Your task to perform on an android device: Is it going to rain tomorrow? Image 0: 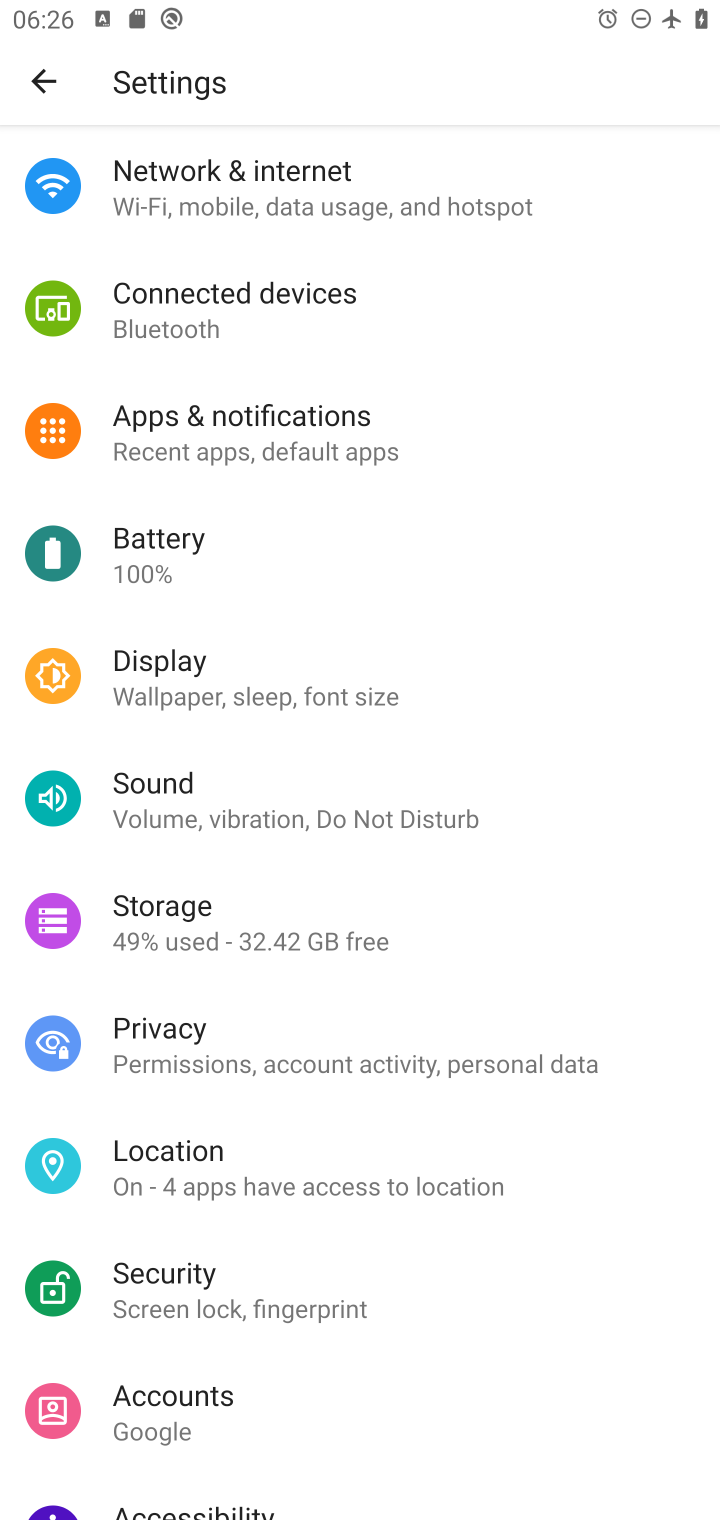
Step 0: press home button
Your task to perform on an android device: Is it going to rain tomorrow? Image 1: 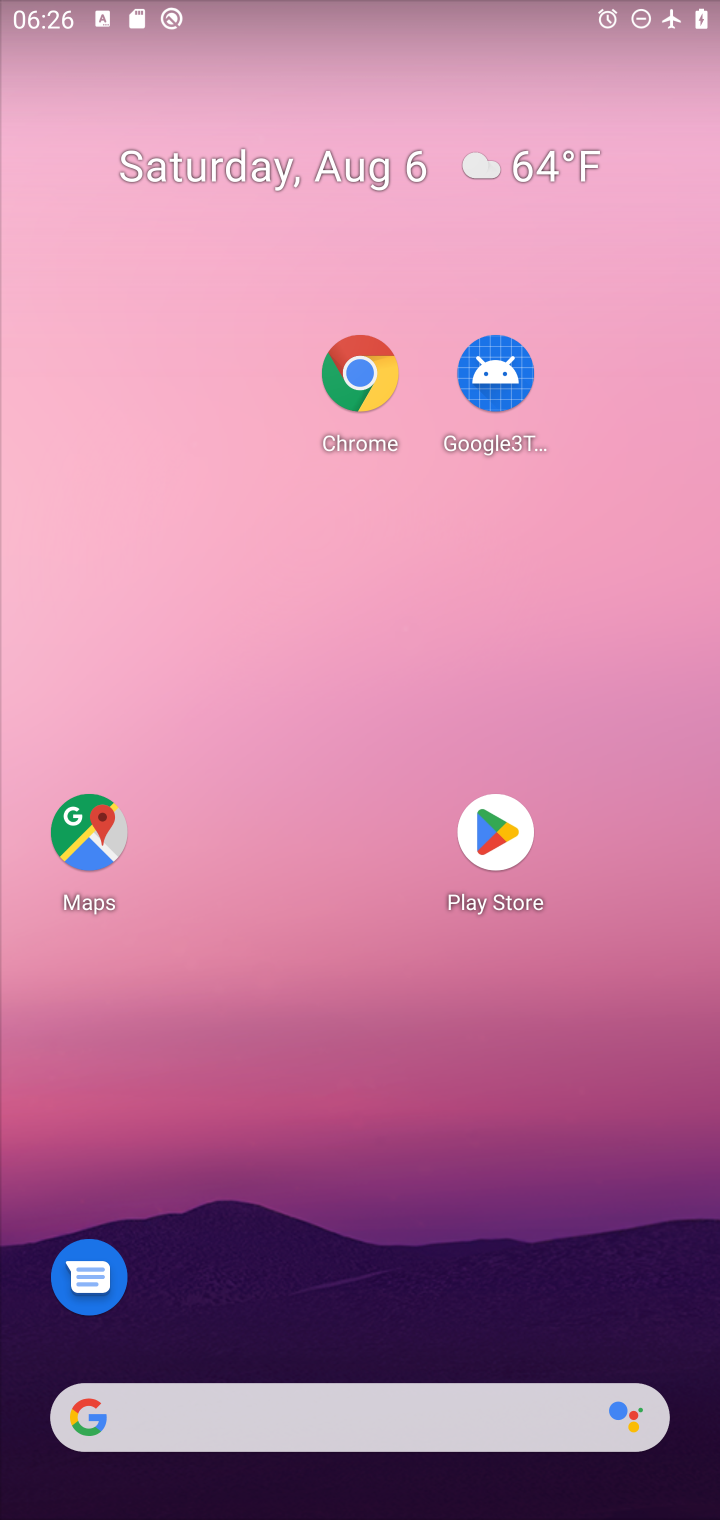
Step 1: drag from (363, 1420) to (82, 380)
Your task to perform on an android device: Is it going to rain tomorrow? Image 2: 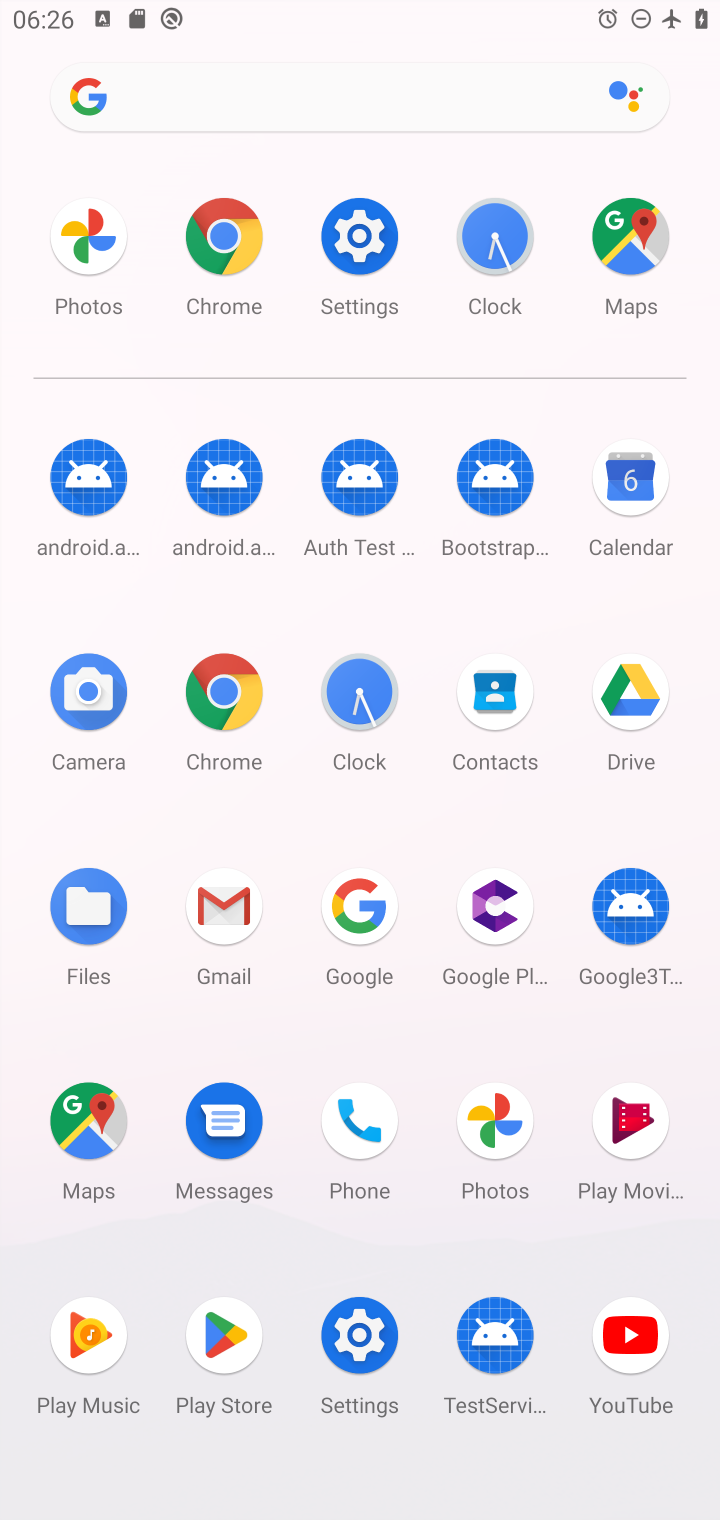
Step 2: click (227, 687)
Your task to perform on an android device: Is it going to rain tomorrow? Image 3: 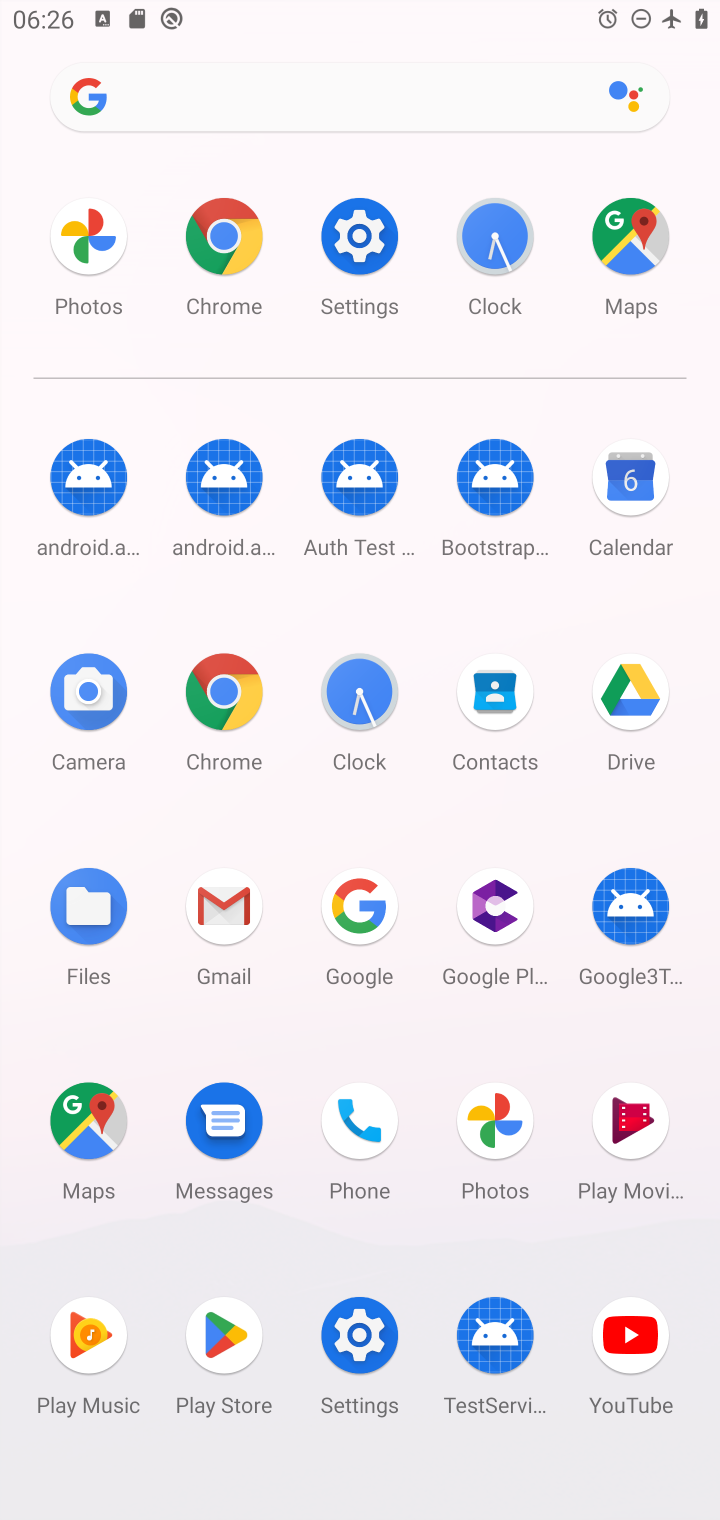
Step 3: click (227, 687)
Your task to perform on an android device: Is it going to rain tomorrow? Image 4: 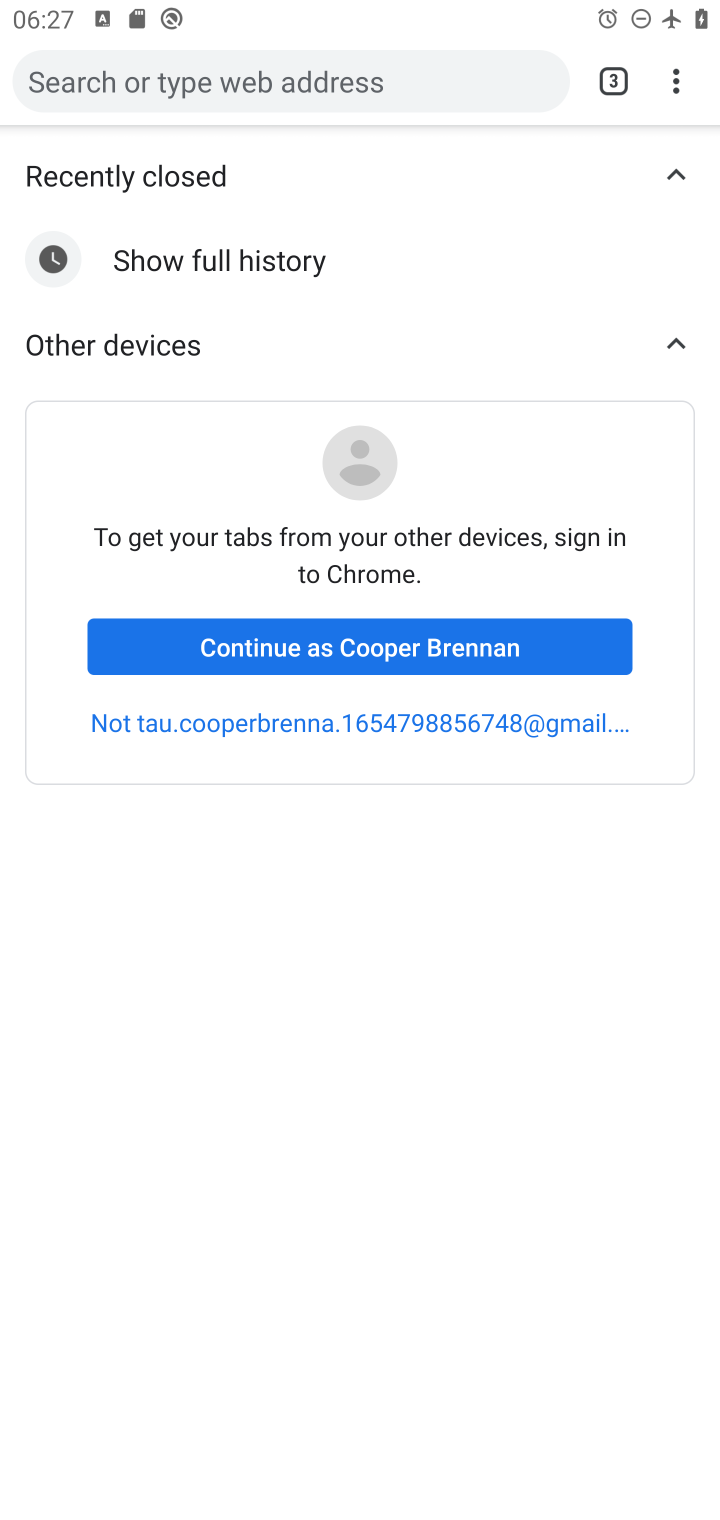
Step 4: press home button
Your task to perform on an android device: Is it going to rain tomorrow? Image 5: 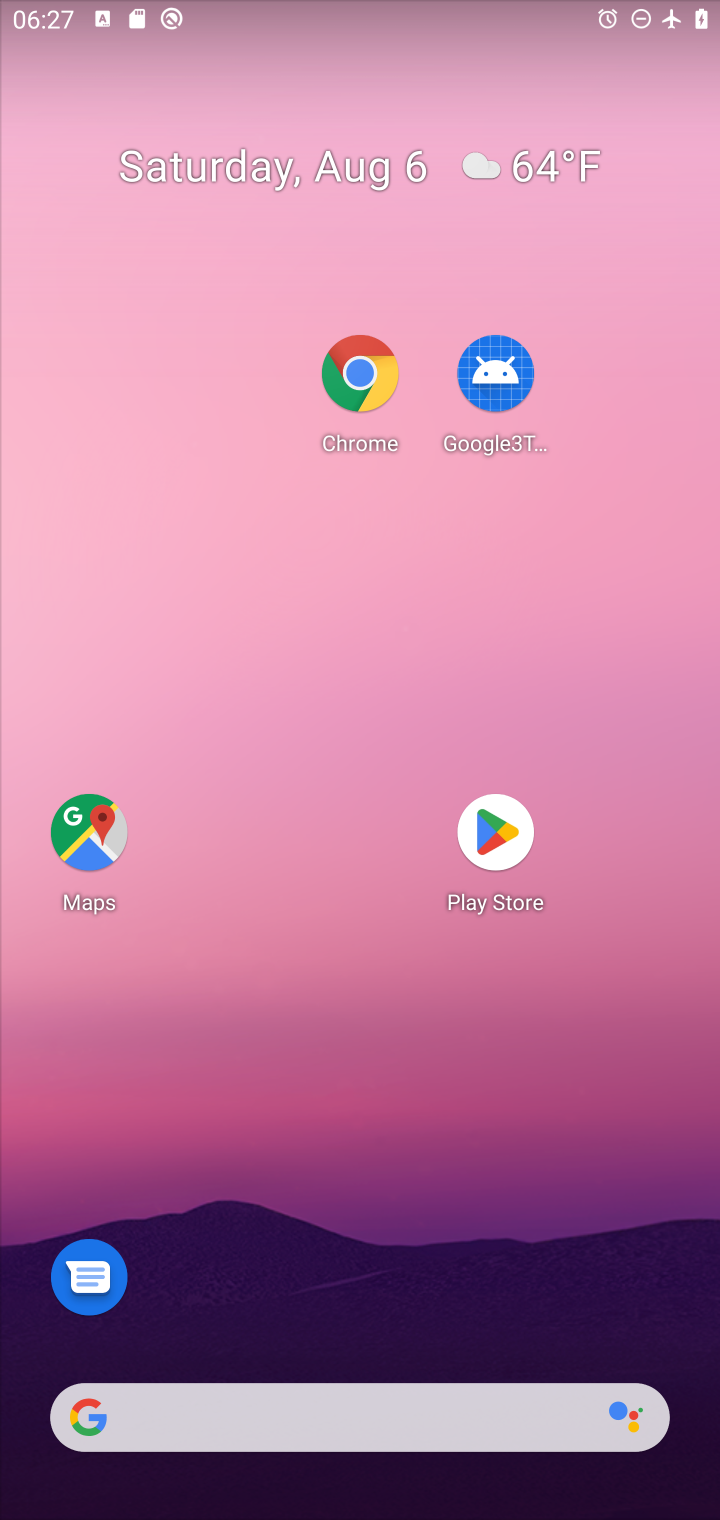
Step 5: drag from (387, 1404) to (230, 2)
Your task to perform on an android device: Is it going to rain tomorrow? Image 6: 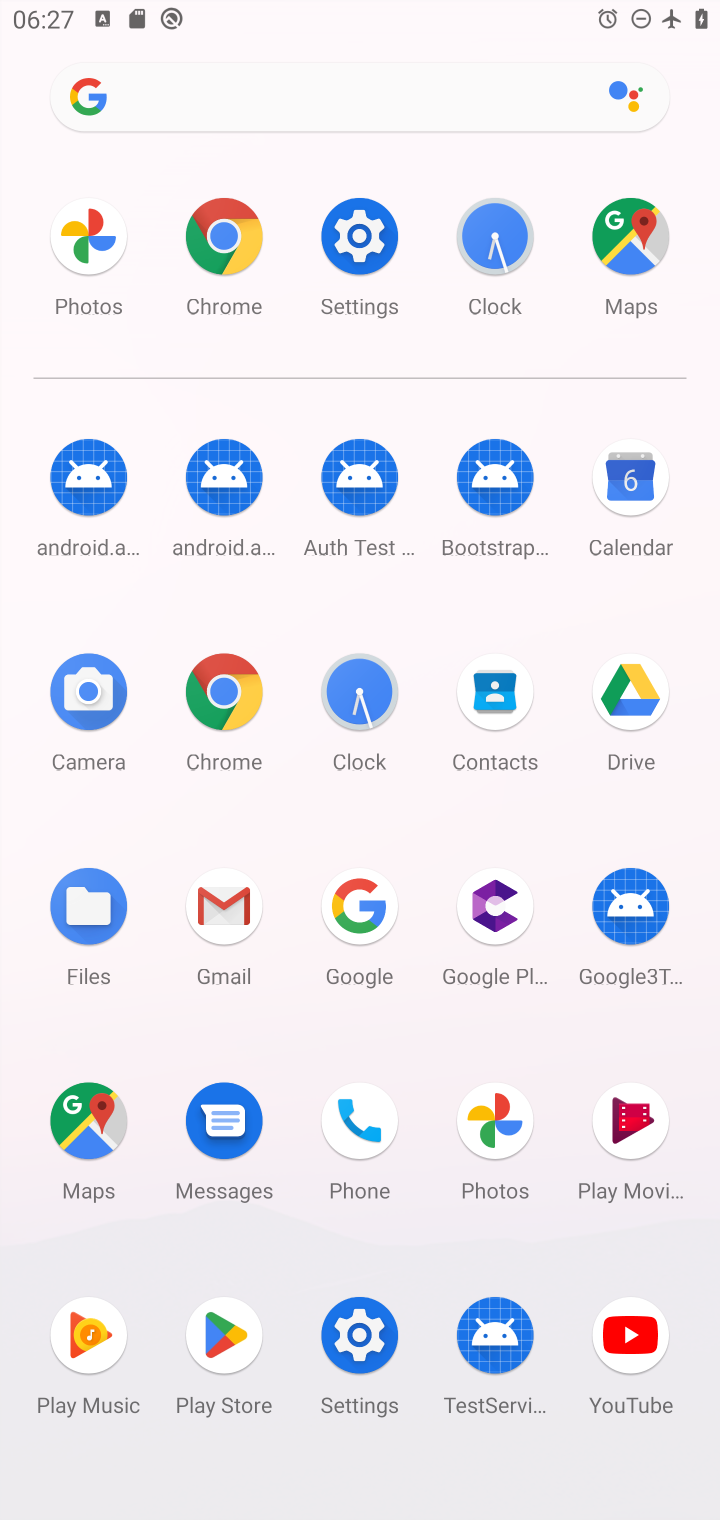
Step 6: click (366, 907)
Your task to perform on an android device: Is it going to rain tomorrow? Image 7: 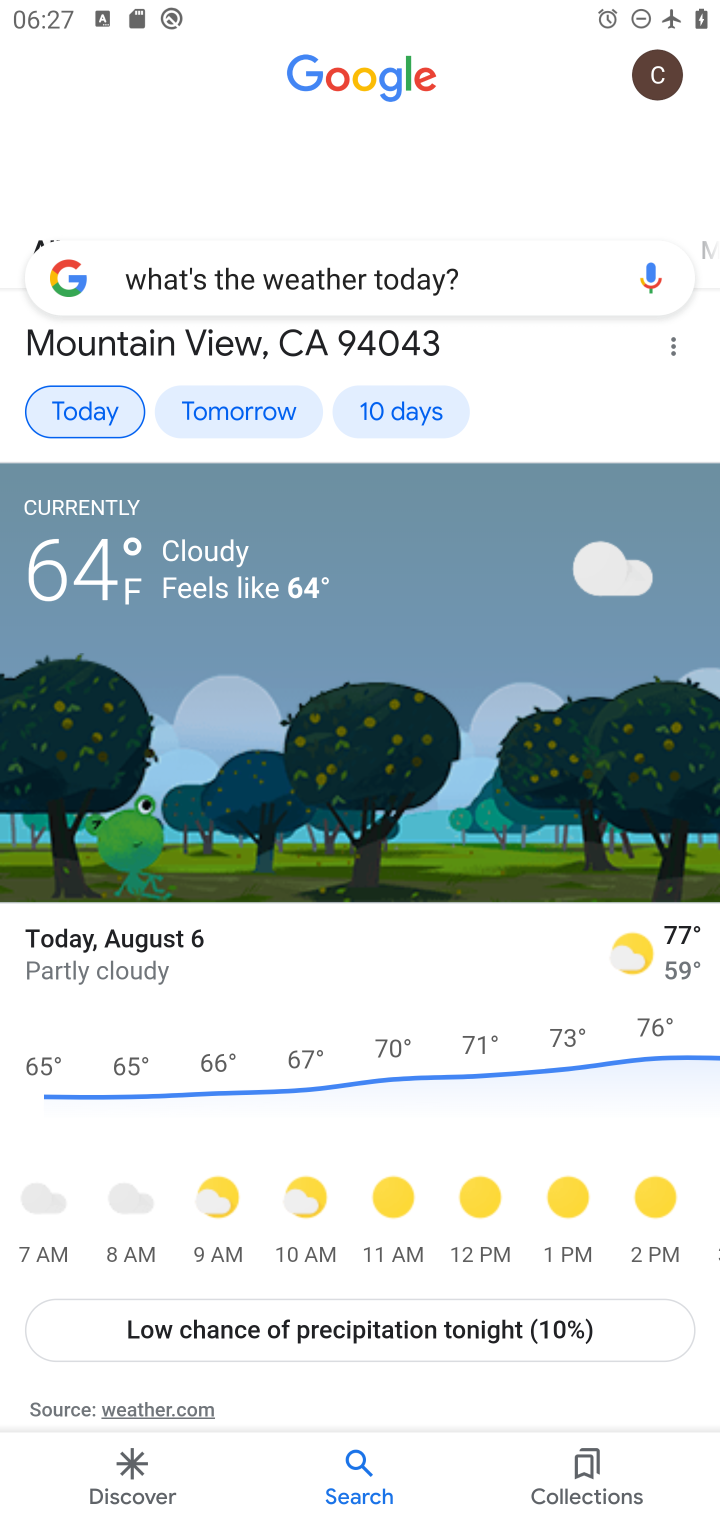
Step 7: click (489, 273)
Your task to perform on an android device: Is it going to rain tomorrow? Image 8: 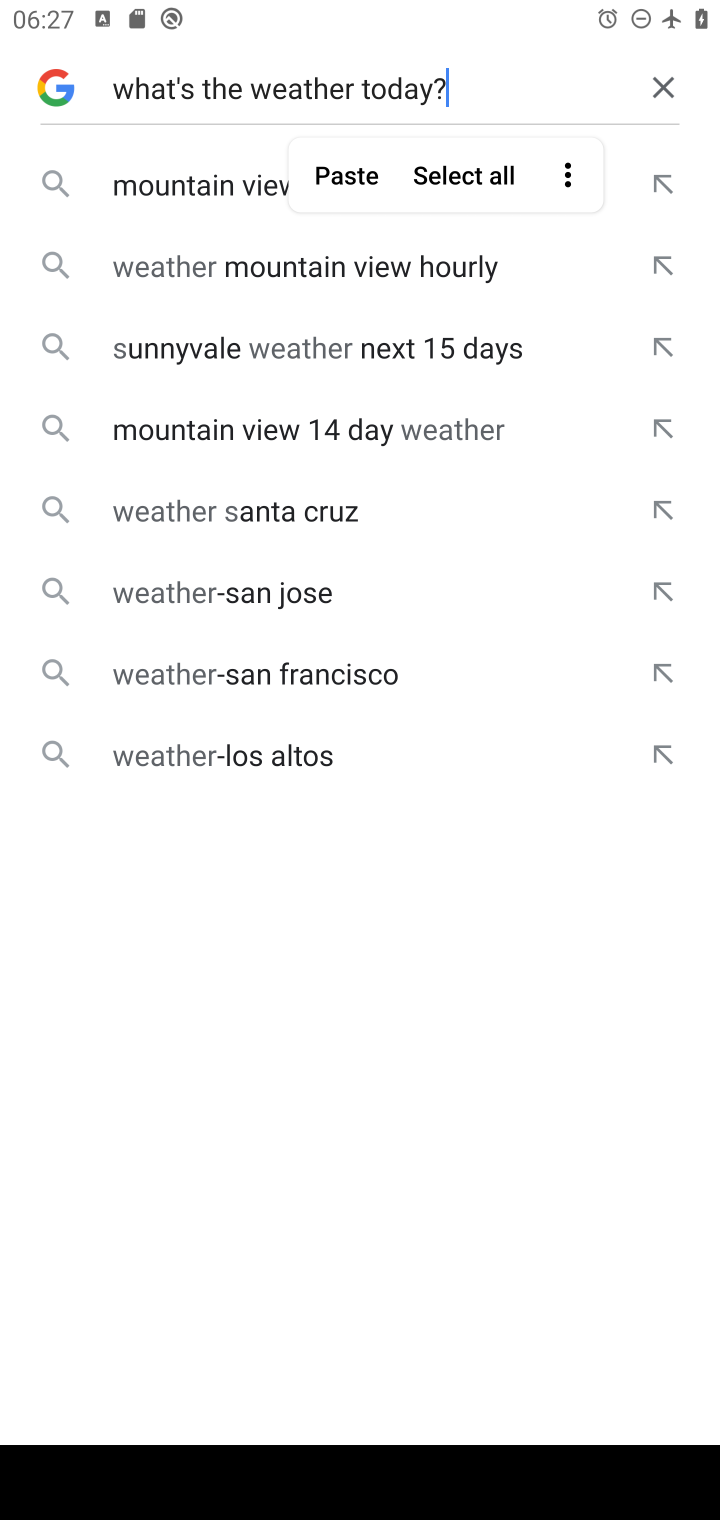
Step 8: click (659, 79)
Your task to perform on an android device: Is it going to rain tomorrow? Image 9: 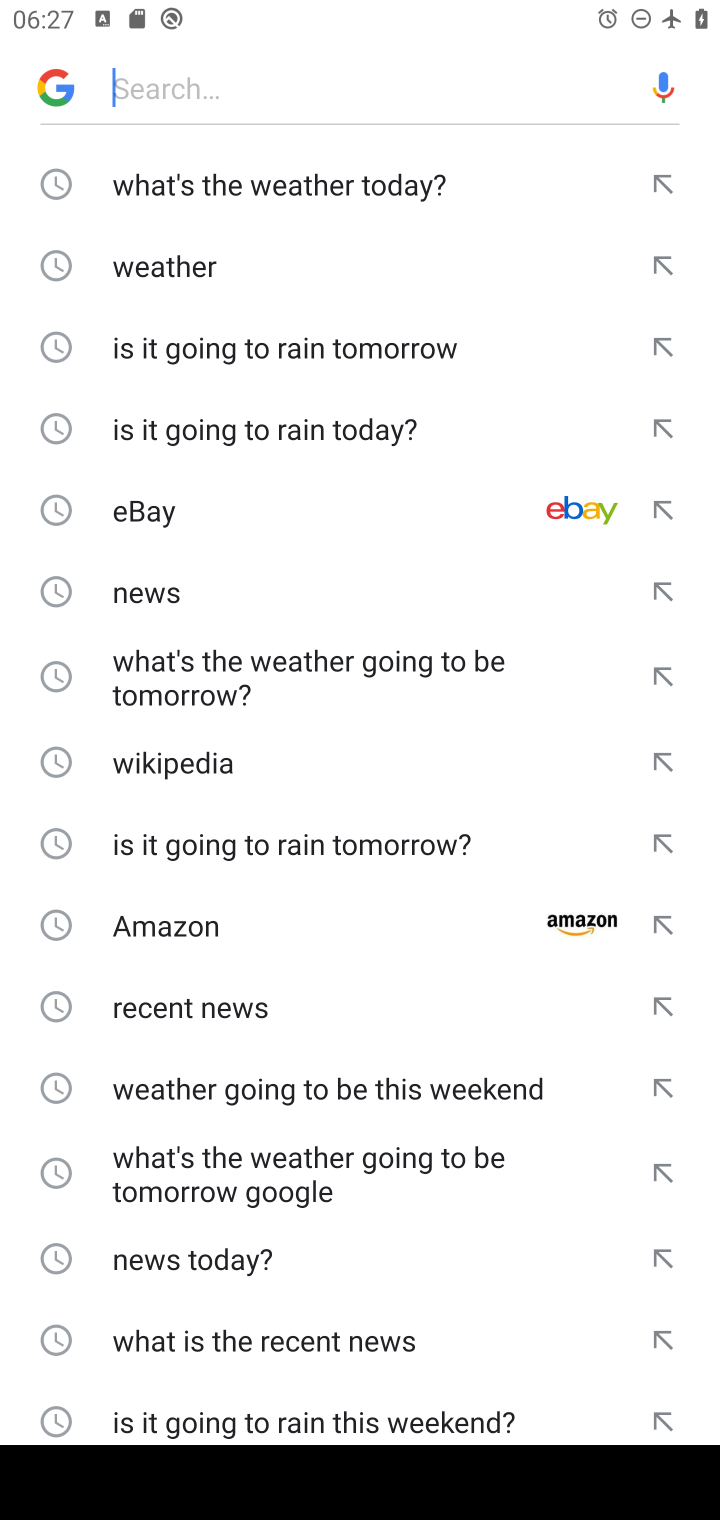
Step 9: click (204, 431)
Your task to perform on an android device: Is it going to rain tomorrow? Image 10: 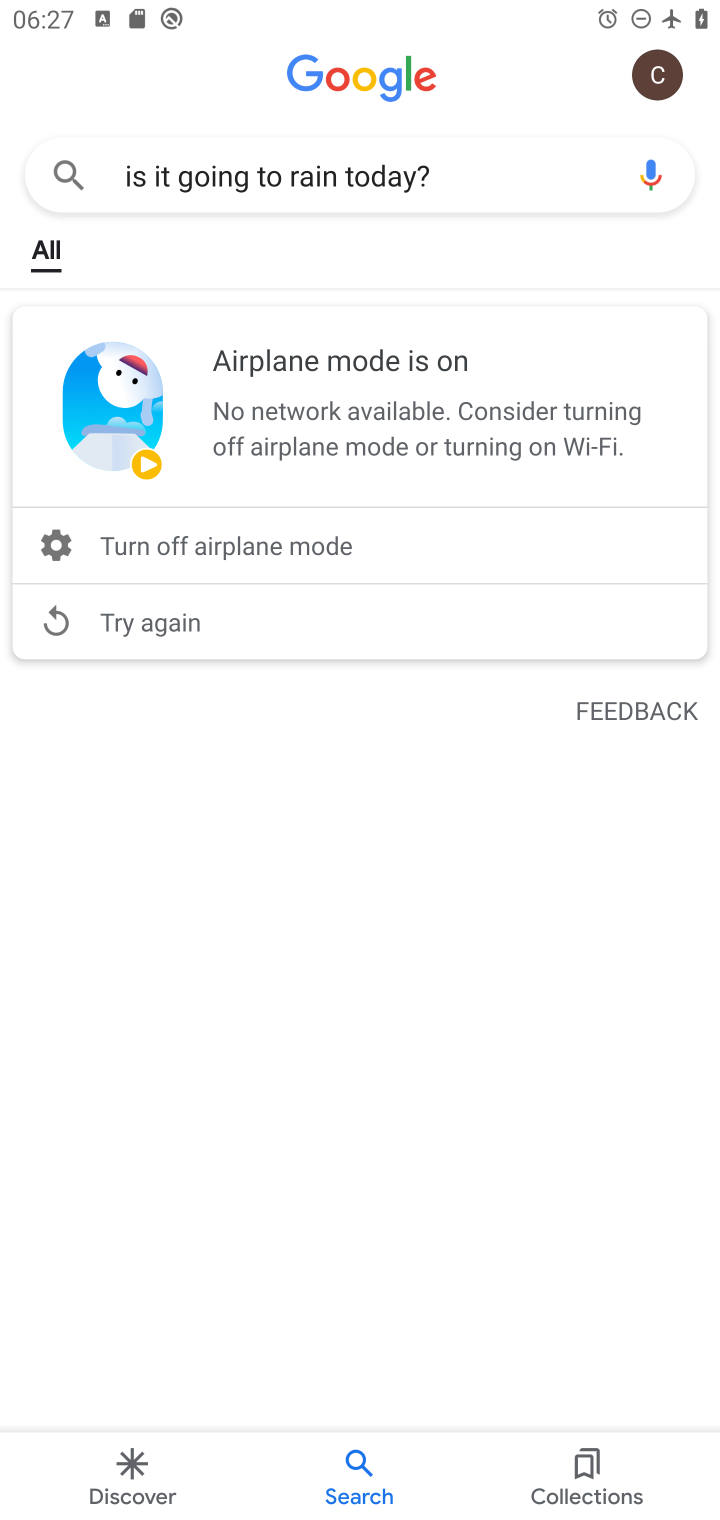
Step 10: task complete